Your task to perform on an android device: set an alarm Image 0: 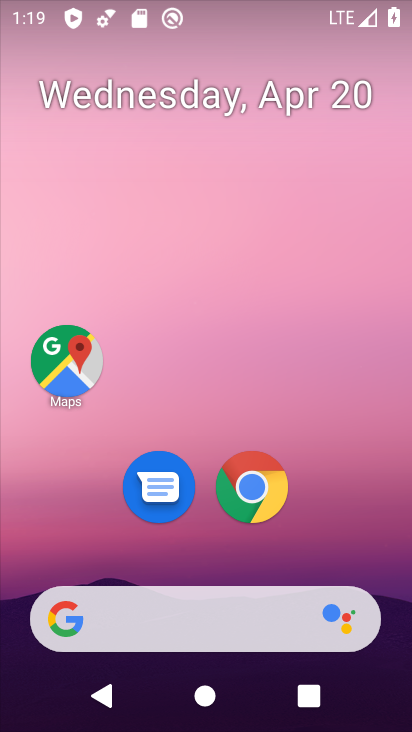
Step 0: drag from (388, 600) to (265, 41)
Your task to perform on an android device: set an alarm Image 1: 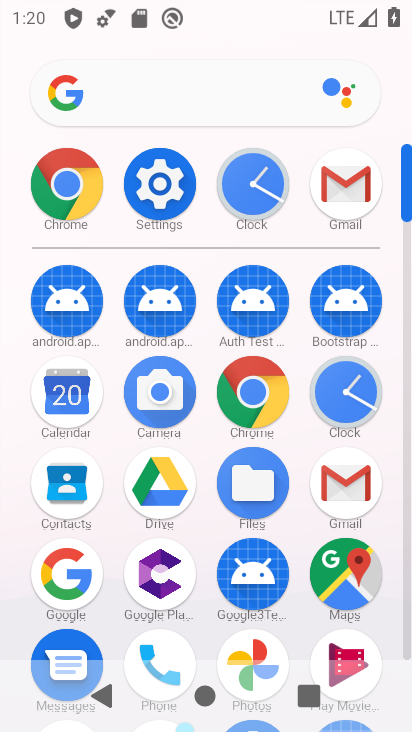
Step 1: click (239, 186)
Your task to perform on an android device: set an alarm Image 2: 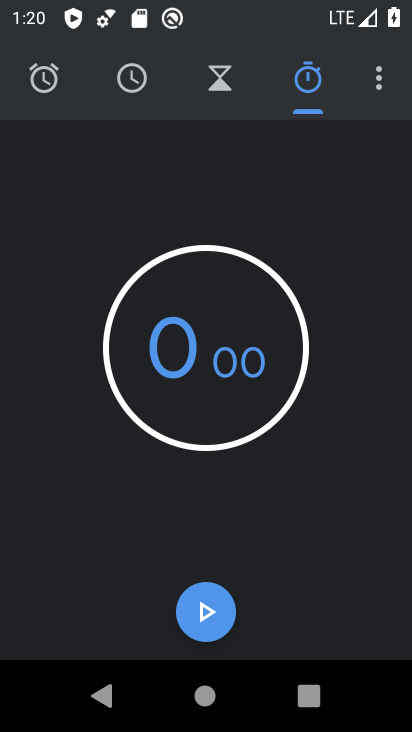
Step 2: click (49, 80)
Your task to perform on an android device: set an alarm Image 3: 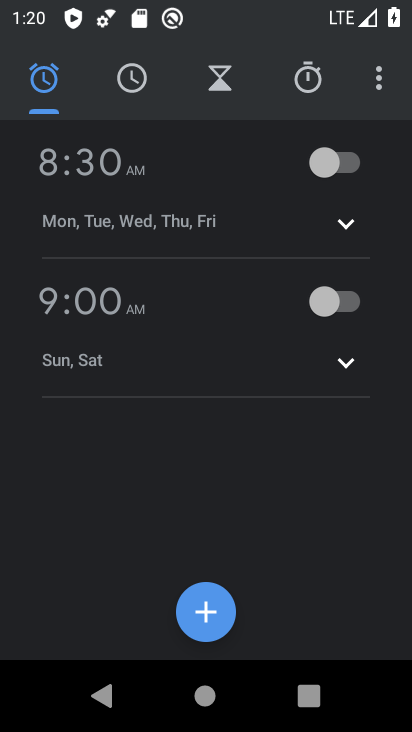
Step 3: click (375, 176)
Your task to perform on an android device: set an alarm Image 4: 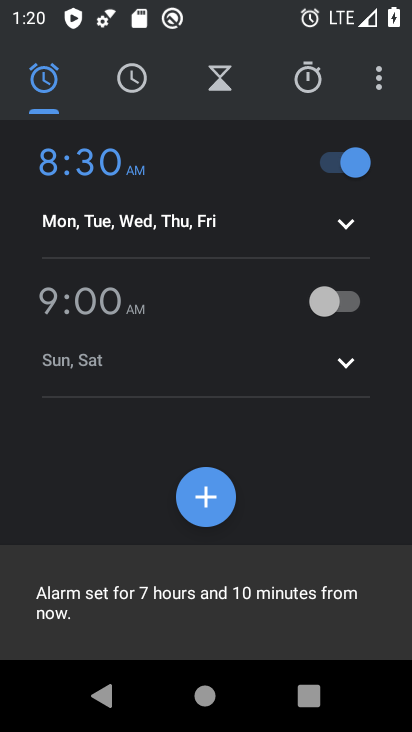
Step 4: task complete